Your task to perform on an android device: Is it going to rain today? Image 0: 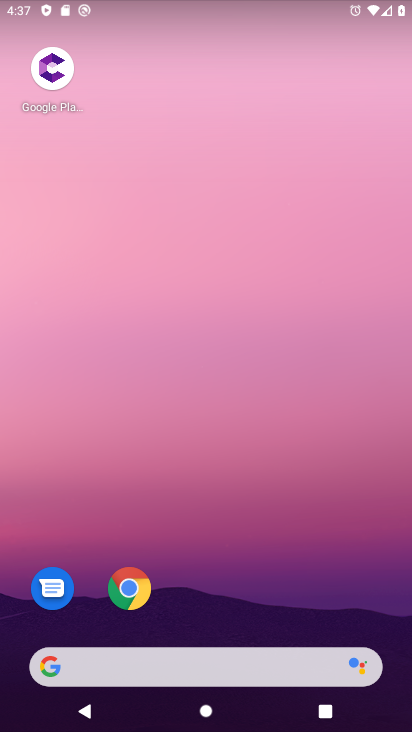
Step 0: drag from (272, 572) to (262, 57)
Your task to perform on an android device: Is it going to rain today? Image 1: 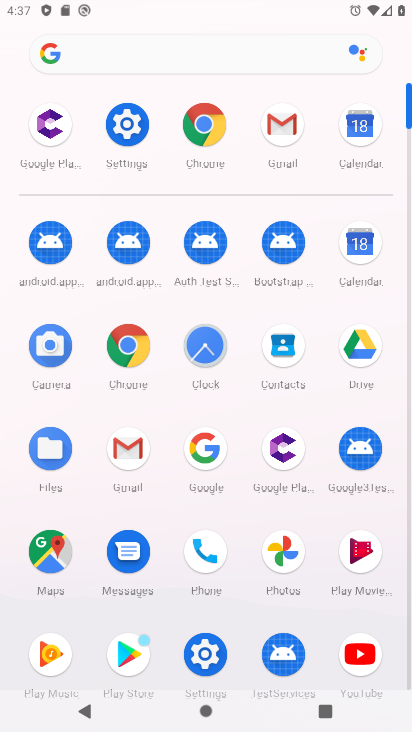
Step 1: click (137, 341)
Your task to perform on an android device: Is it going to rain today? Image 2: 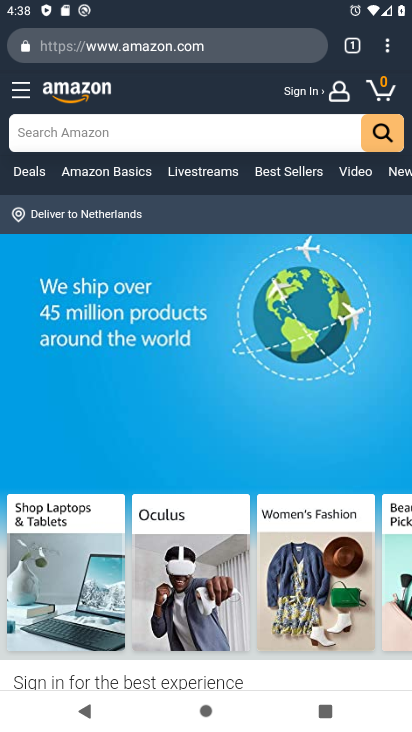
Step 2: press home button
Your task to perform on an android device: Is it going to rain today? Image 3: 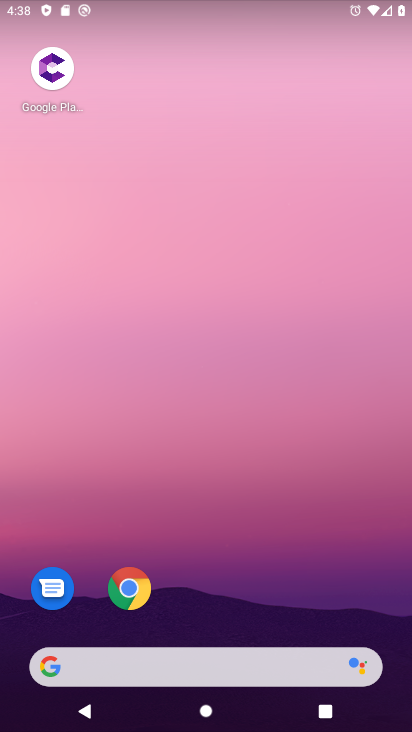
Step 3: drag from (266, 526) to (303, 32)
Your task to perform on an android device: Is it going to rain today? Image 4: 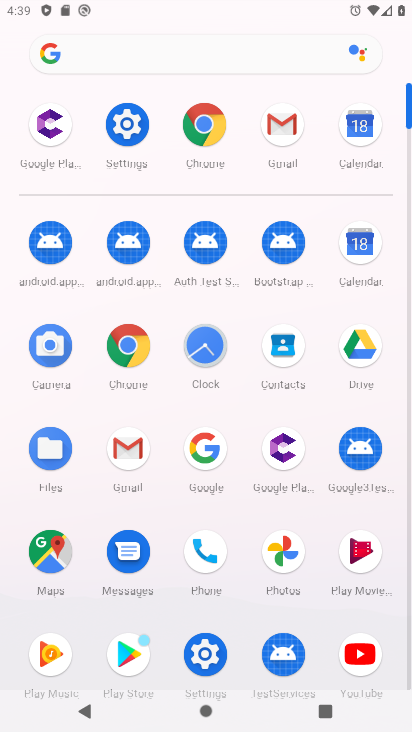
Step 4: click (131, 334)
Your task to perform on an android device: Is it going to rain today? Image 5: 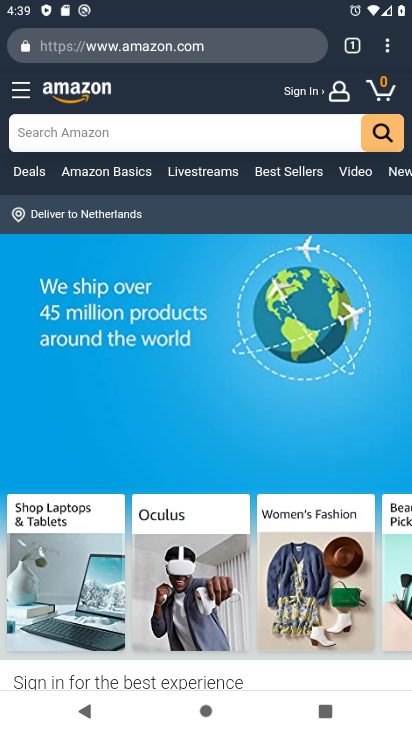
Step 5: click (204, 40)
Your task to perform on an android device: Is it going to rain today? Image 6: 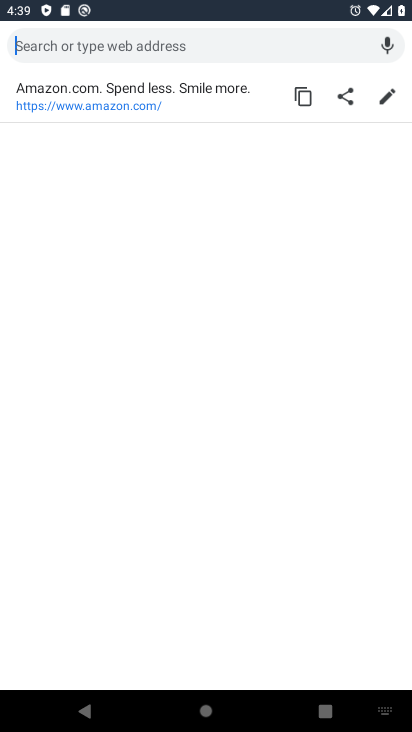
Step 6: type "weather"
Your task to perform on an android device: Is it going to rain today? Image 7: 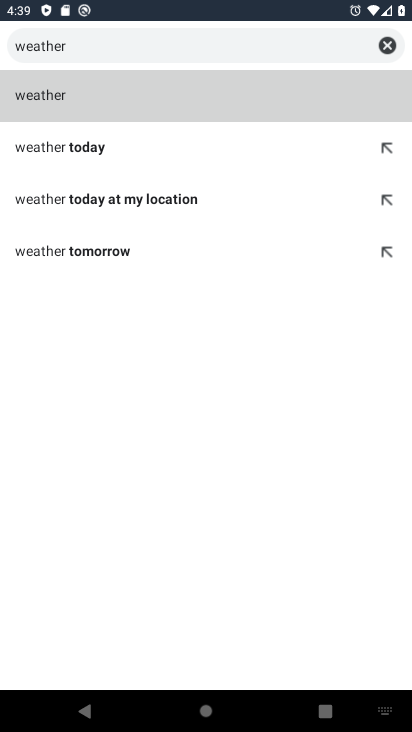
Step 7: click (52, 93)
Your task to perform on an android device: Is it going to rain today? Image 8: 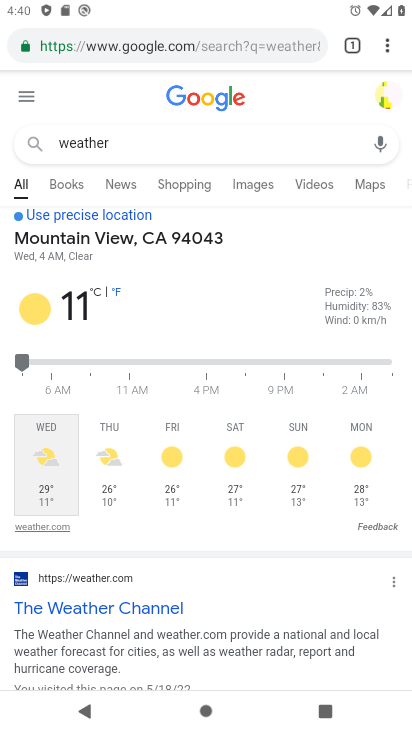
Step 8: task complete